Your task to perform on an android device: turn on improve location accuracy Image 0: 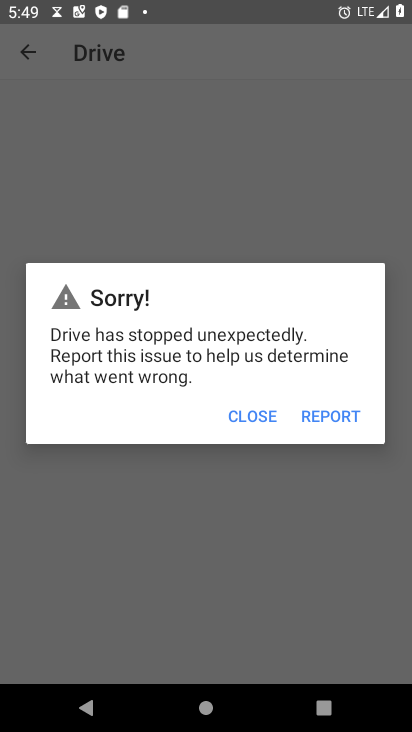
Step 0: press home button
Your task to perform on an android device: turn on improve location accuracy Image 1: 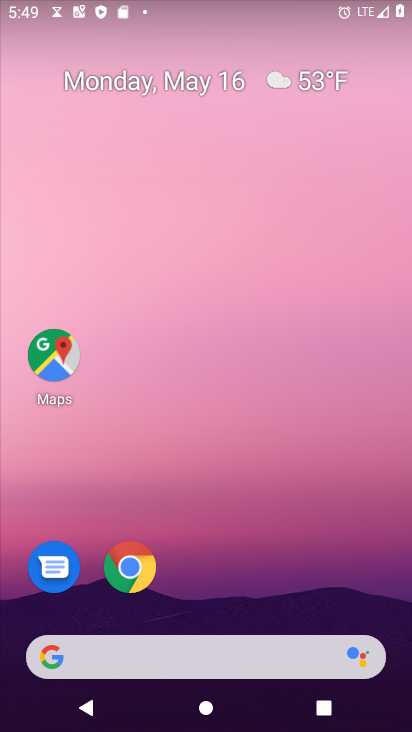
Step 1: drag from (250, 662) to (236, 48)
Your task to perform on an android device: turn on improve location accuracy Image 2: 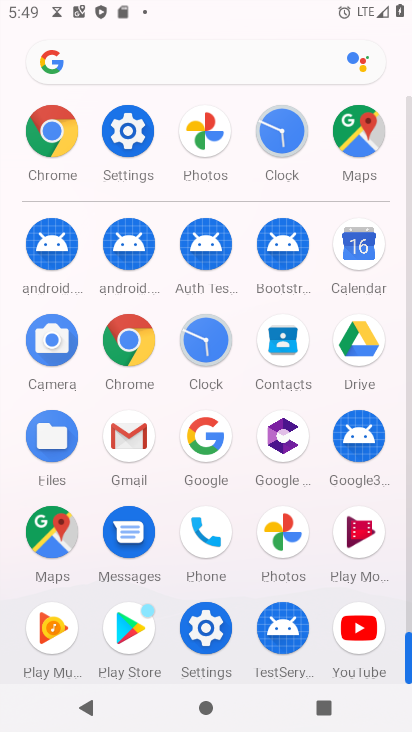
Step 2: click (129, 143)
Your task to perform on an android device: turn on improve location accuracy Image 3: 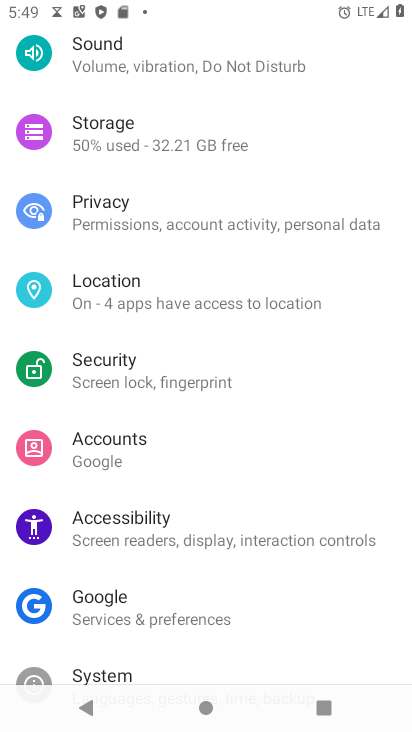
Step 3: click (147, 273)
Your task to perform on an android device: turn on improve location accuracy Image 4: 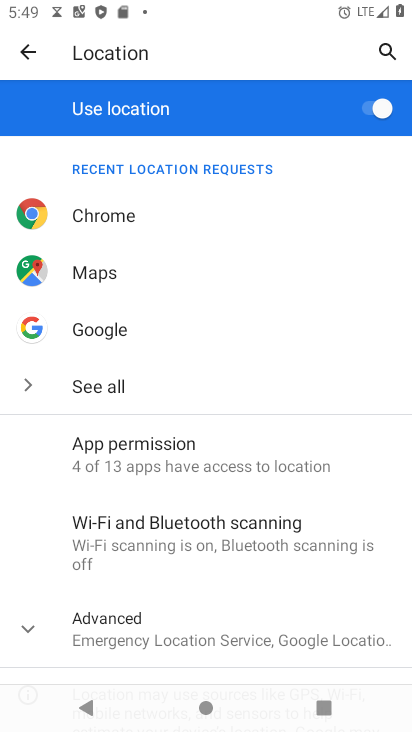
Step 4: drag from (240, 620) to (208, 252)
Your task to perform on an android device: turn on improve location accuracy Image 5: 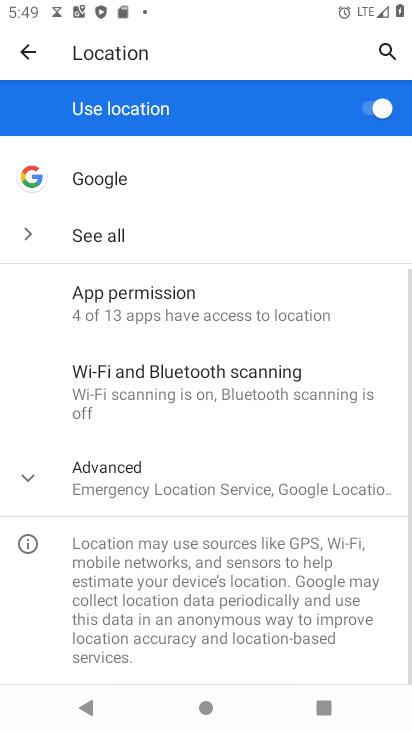
Step 5: click (187, 473)
Your task to perform on an android device: turn on improve location accuracy Image 6: 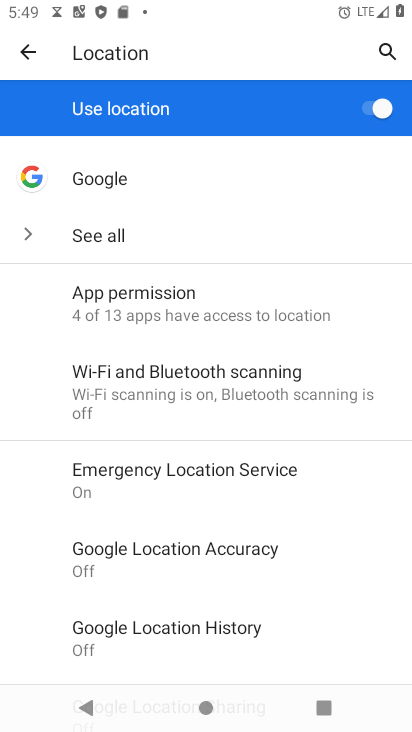
Step 6: click (187, 548)
Your task to perform on an android device: turn on improve location accuracy Image 7: 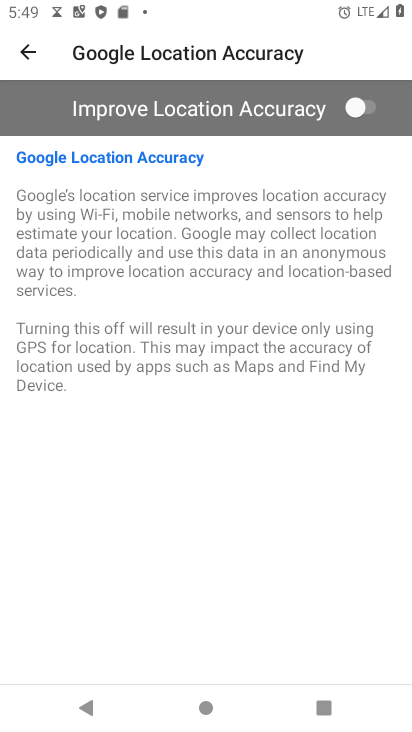
Step 7: click (364, 108)
Your task to perform on an android device: turn on improve location accuracy Image 8: 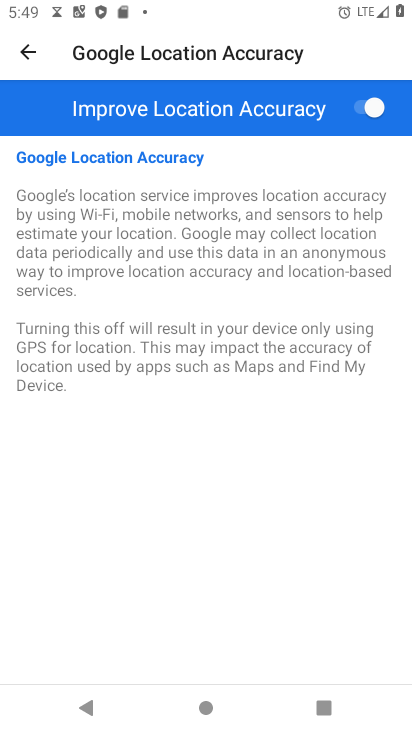
Step 8: task complete